Your task to perform on an android device: turn off notifications settings in the gmail app Image 0: 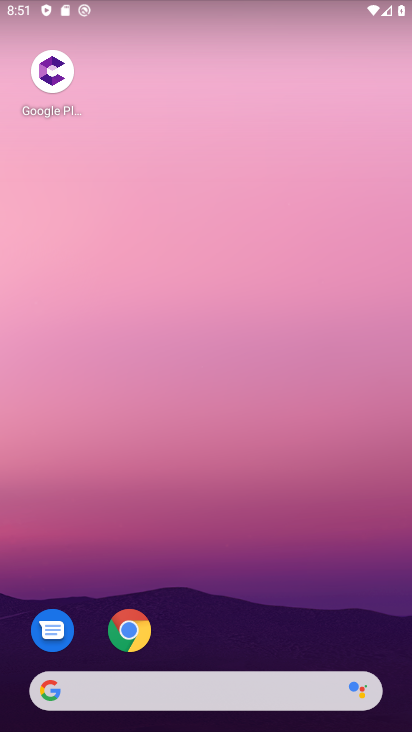
Step 0: drag from (320, 546) to (362, 78)
Your task to perform on an android device: turn off notifications settings in the gmail app Image 1: 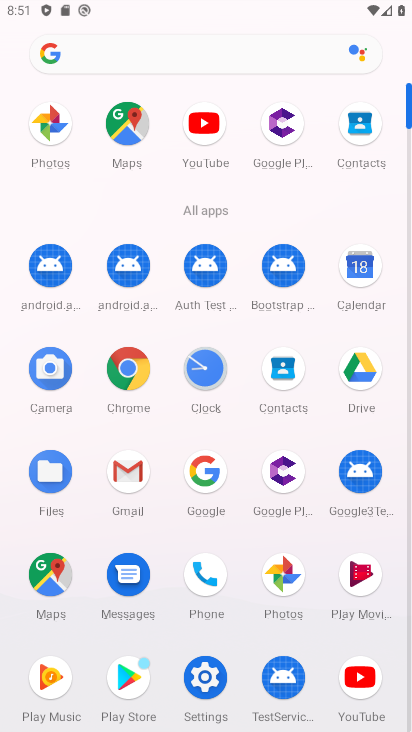
Step 1: click (137, 463)
Your task to perform on an android device: turn off notifications settings in the gmail app Image 2: 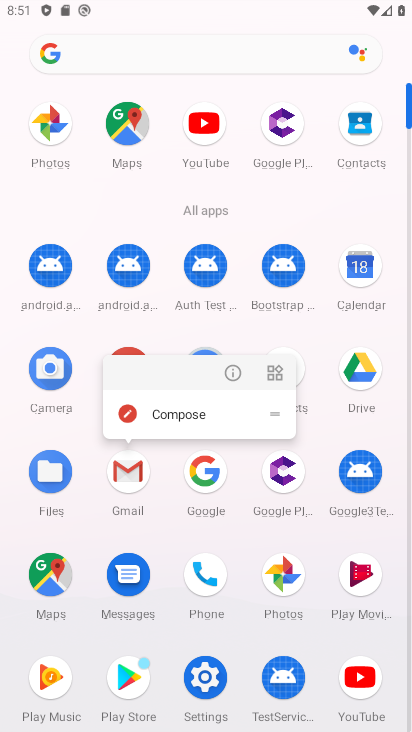
Step 2: click (132, 466)
Your task to perform on an android device: turn off notifications settings in the gmail app Image 3: 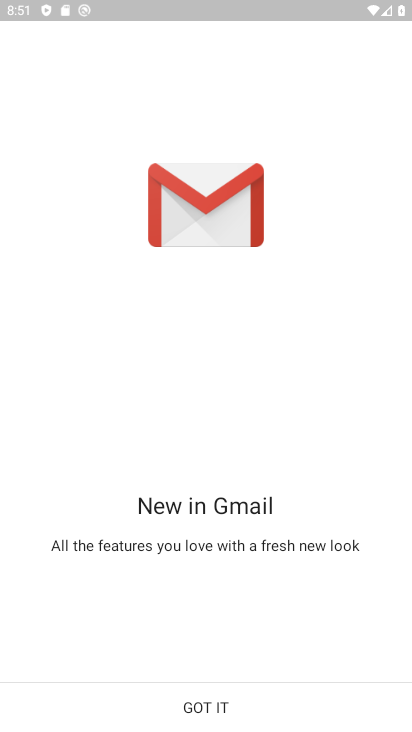
Step 3: click (194, 701)
Your task to perform on an android device: turn off notifications settings in the gmail app Image 4: 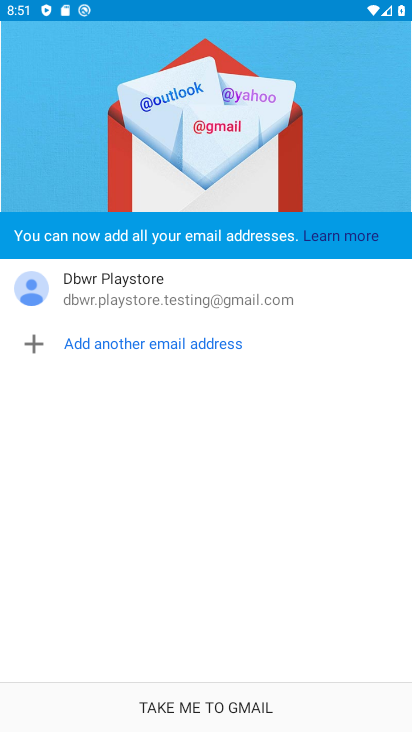
Step 4: click (194, 701)
Your task to perform on an android device: turn off notifications settings in the gmail app Image 5: 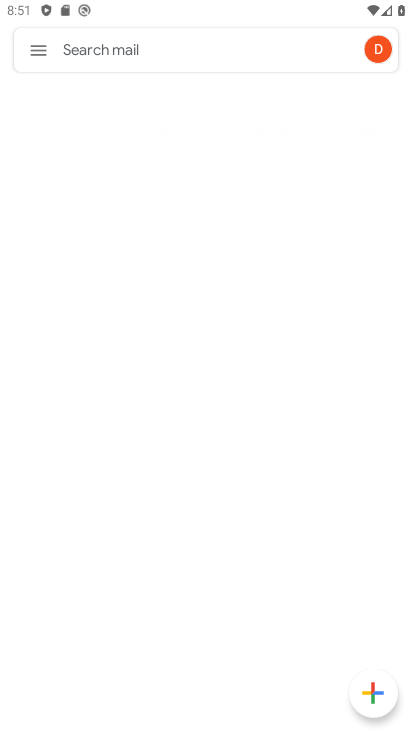
Step 5: click (38, 47)
Your task to perform on an android device: turn off notifications settings in the gmail app Image 6: 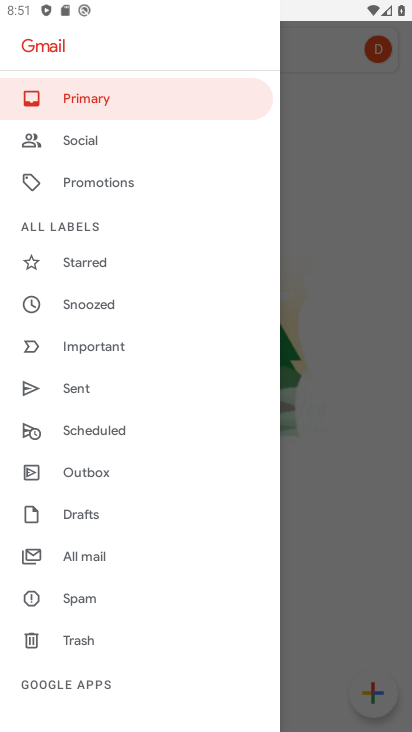
Step 6: drag from (162, 590) to (178, 480)
Your task to perform on an android device: turn off notifications settings in the gmail app Image 7: 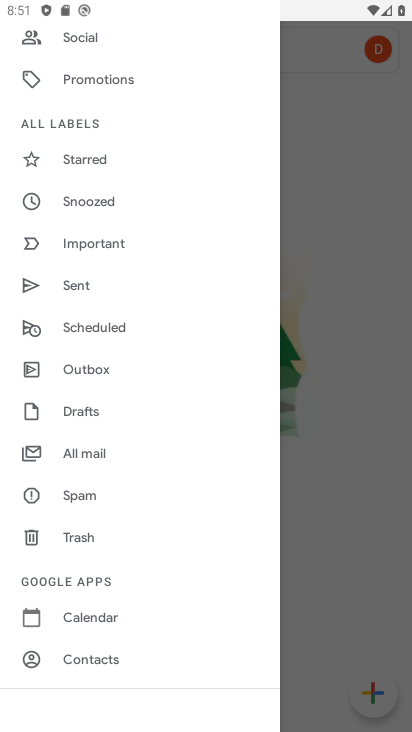
Step 7: drag from (169, 525) to (166, 347)
Your task to perform on an android device: turn off notifications settings in the gmail app Image 8: 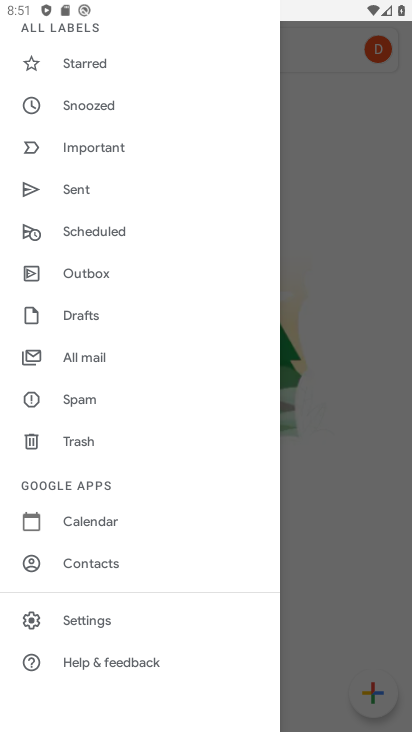
Step 8: click (97, 618)
Your task to perform on an android device: turn off notifications settings in the gmail app Image 9: 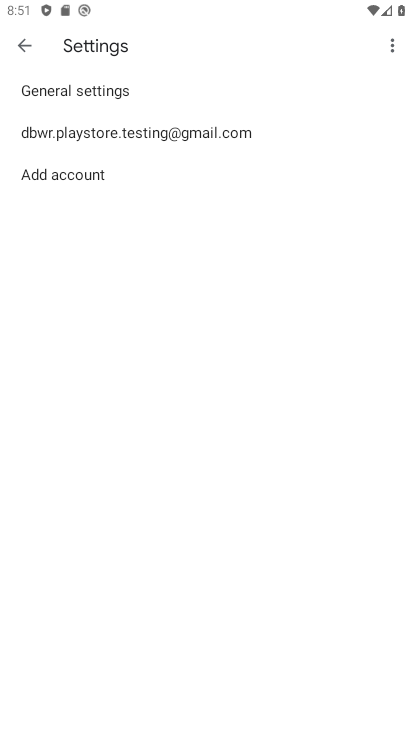
Step 9: click (210, 125)
Your task to perform on an android device: turn off notifications settings in the gmail app Image 10: 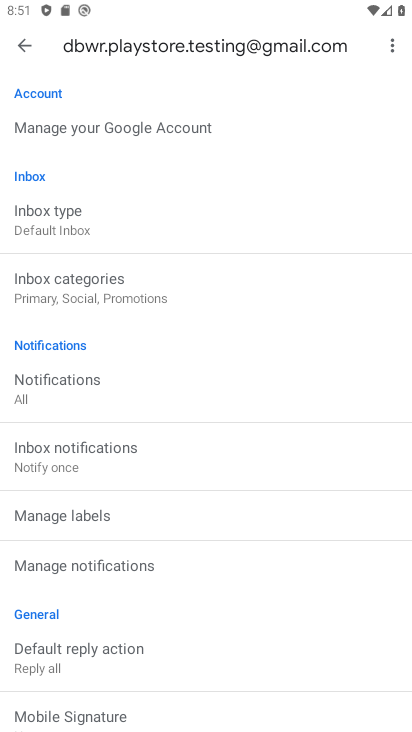
Step 10: click (153, 567)
Your task to perform on an android device: turn off notifications settings in the gmail app Image 11: 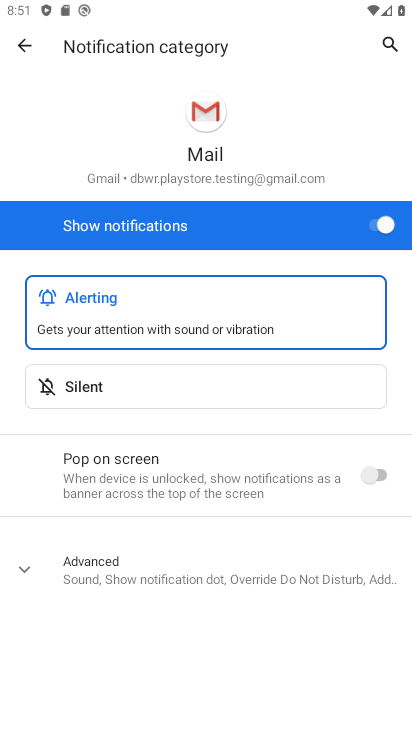
Step 11: click (368, 225)
Your task to perform on an android device: turn off notifications settings in the gmail app Image 12: 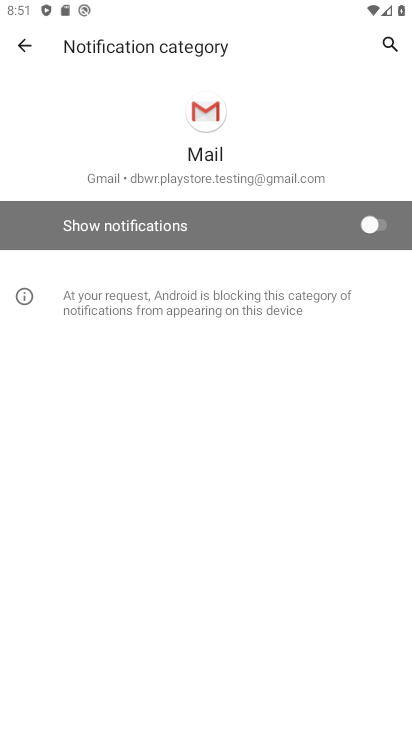
Step 12: task complete